Your task to perform on an android device: Search for "razer blackwidow" on amazon, select the first entry, and add it to the cart. Image 0: 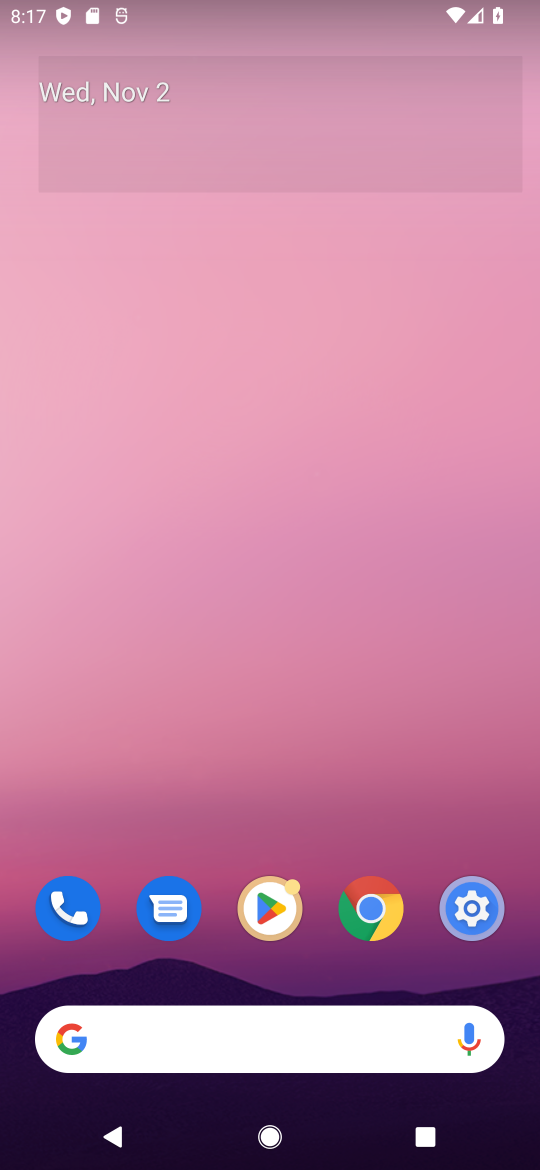
Step 0: click (202, 1043)
Your task to perform on an android device: Search for "razer blackwidow" on amazon, select the first entry, and add it to the cart. Image 1: 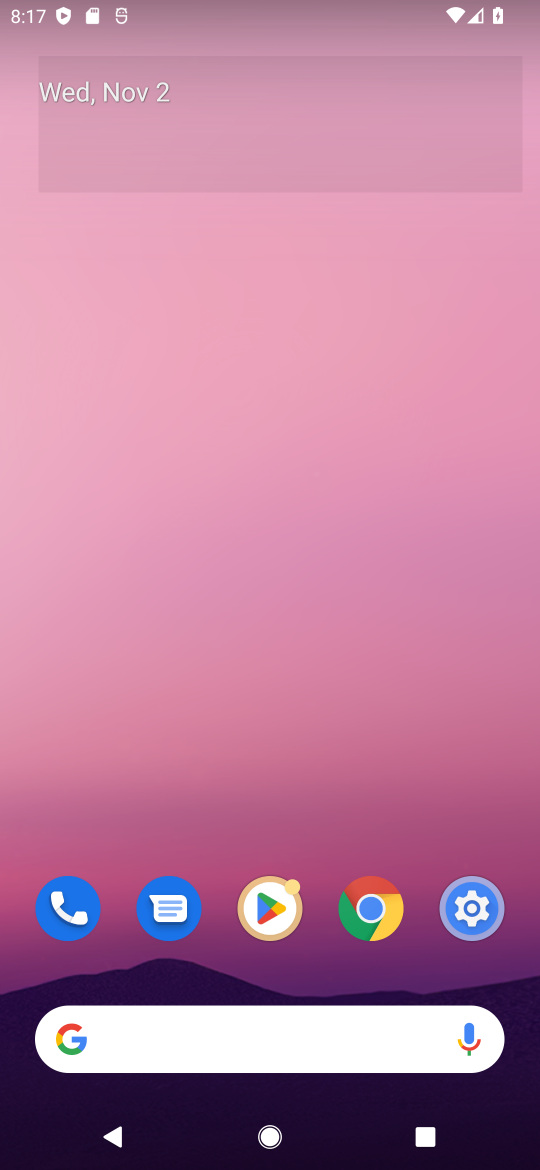
Step 1: click (198, 1052)
Your task to perform on an android device: Search for "razer blackwidow" on amazon, select the first entry, and add it to the cart. Image 2: 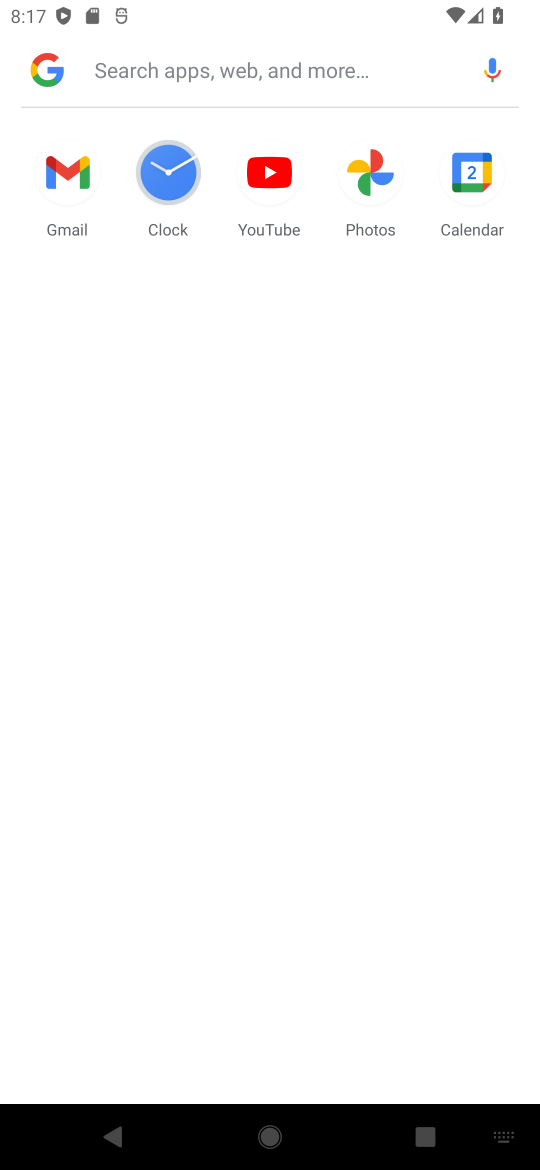
Step 2: type "amazon"
Your task to perform on an android device: Search for "razer blackwidow" on amazon, select the first entry, and add it to the cart. Image 3: 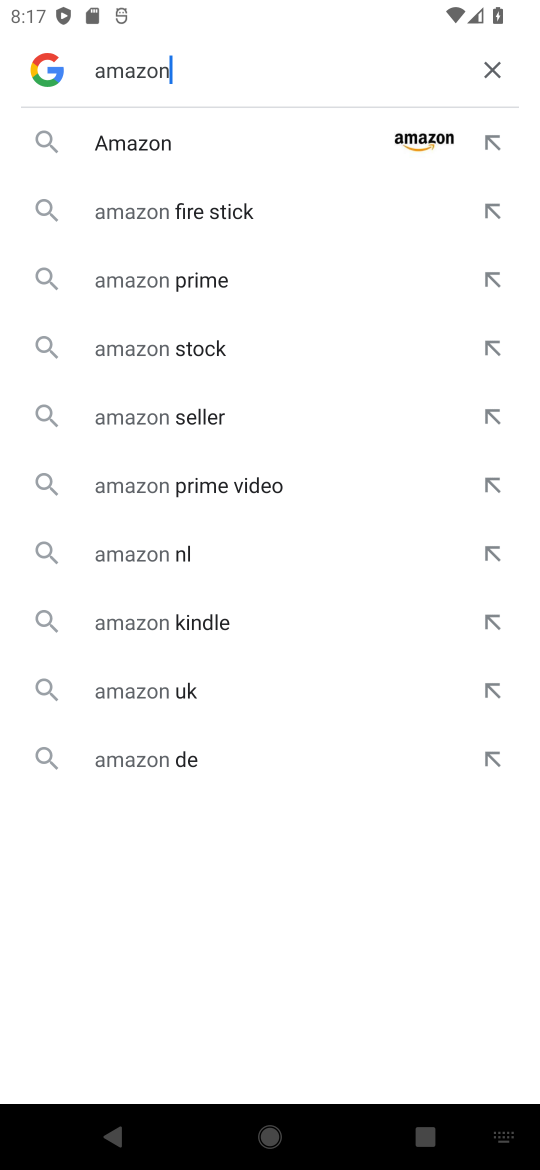
Step 3: type ""
Your task to perform on an android device: Search for "razer blackwidow" on amazon, select the first entry, and add it to the cart. Image 4: 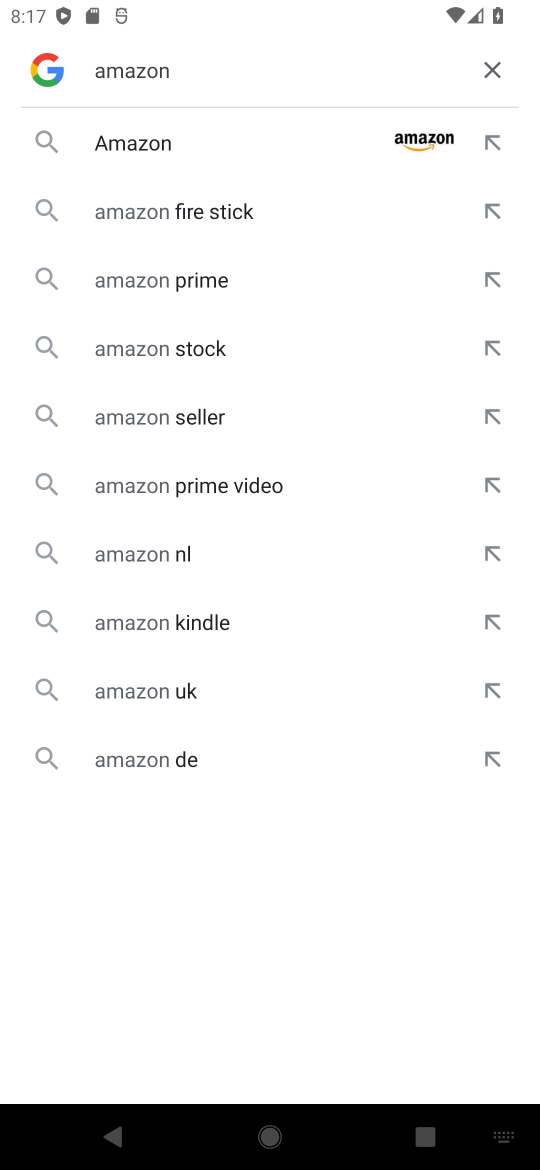
Step 4: press enter
Your task to perform on an android device: Search for "razer blackwidow" on amazon, select the first entry, and add it to the cart. Image 5: 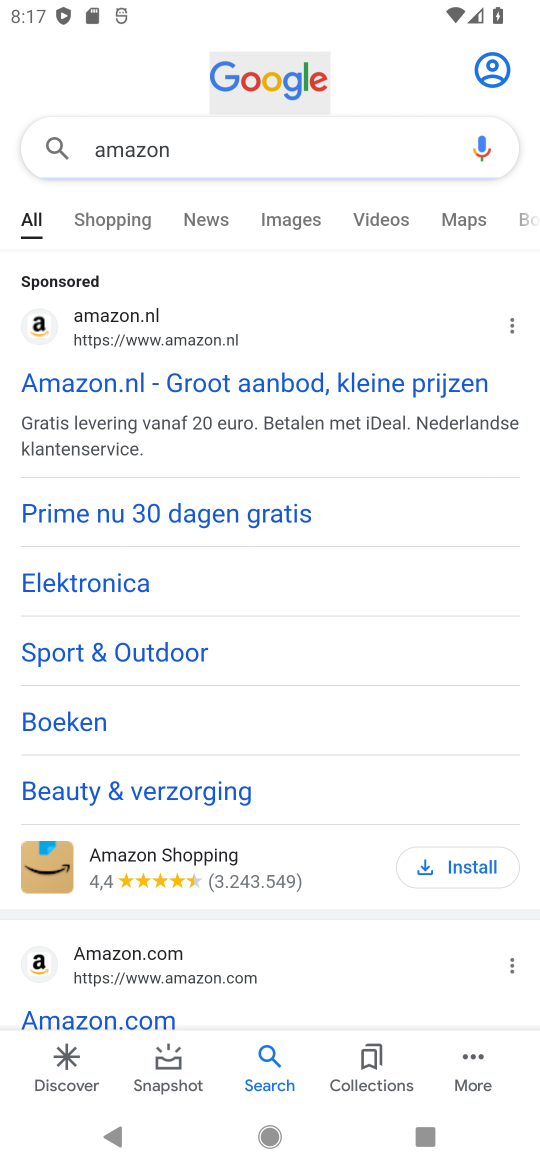
Step 5: click (81, 406)
Your task to perform on an android device: Search for "razer blackwidow" on amazon, select the first entry, and add it to the cart. Image 6: 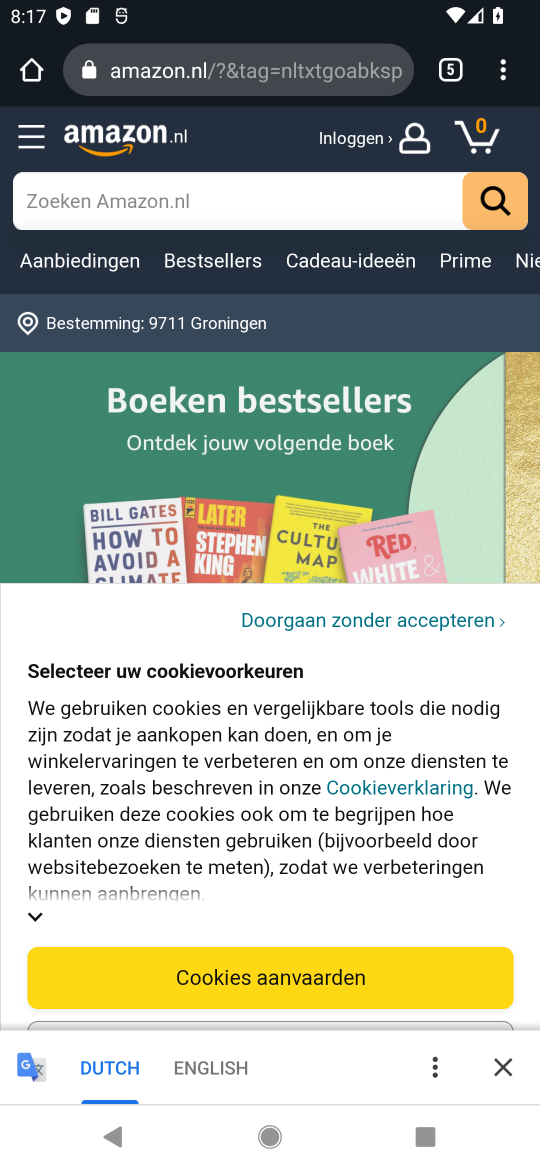
Step 6: drag from (302, 787) to (284, 611)
Your task to perform on an android device: Search for "razer blackwidow" on amazon, select the first entry, and add it to the cart. Image 7: 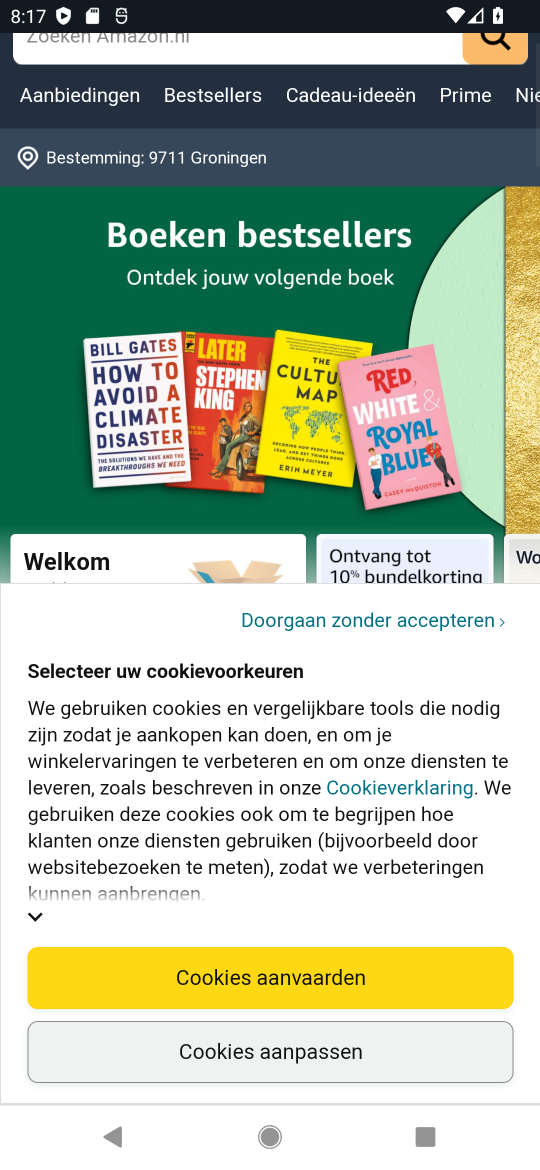
Step 7: drag from (264, 197) to (313, 571)
Your task to perform on an android device: Search for "razer blackwidow" on amazon, select the first entry, and add it to the cart. Image 8: 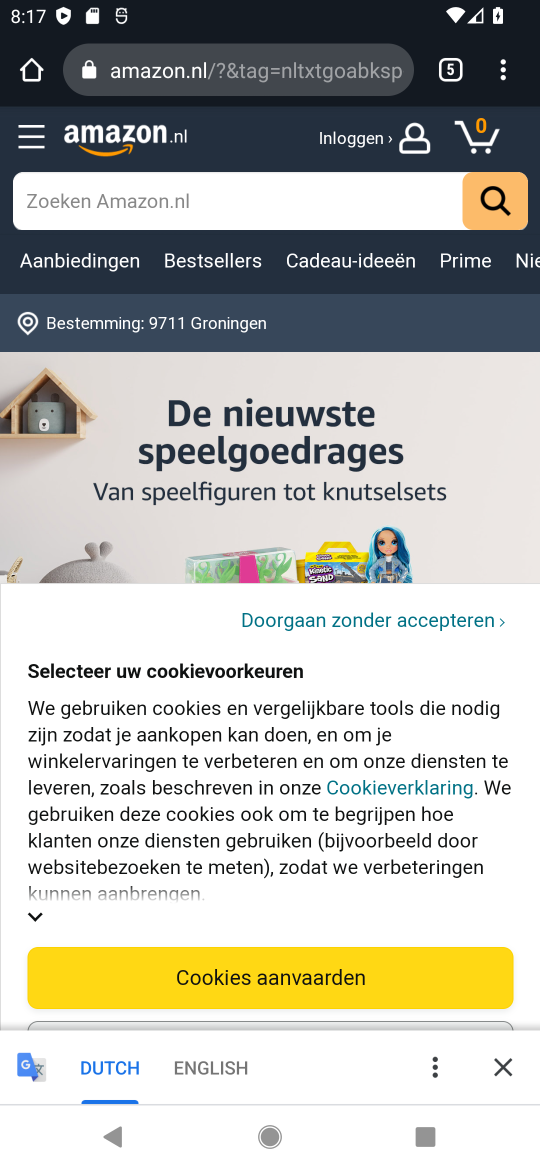
Step 8: click (281, 215)
Your task to perform on an android device: Search for "razer blackwidow" on amazon, select the first entry, and add it to the cart. Image 9: 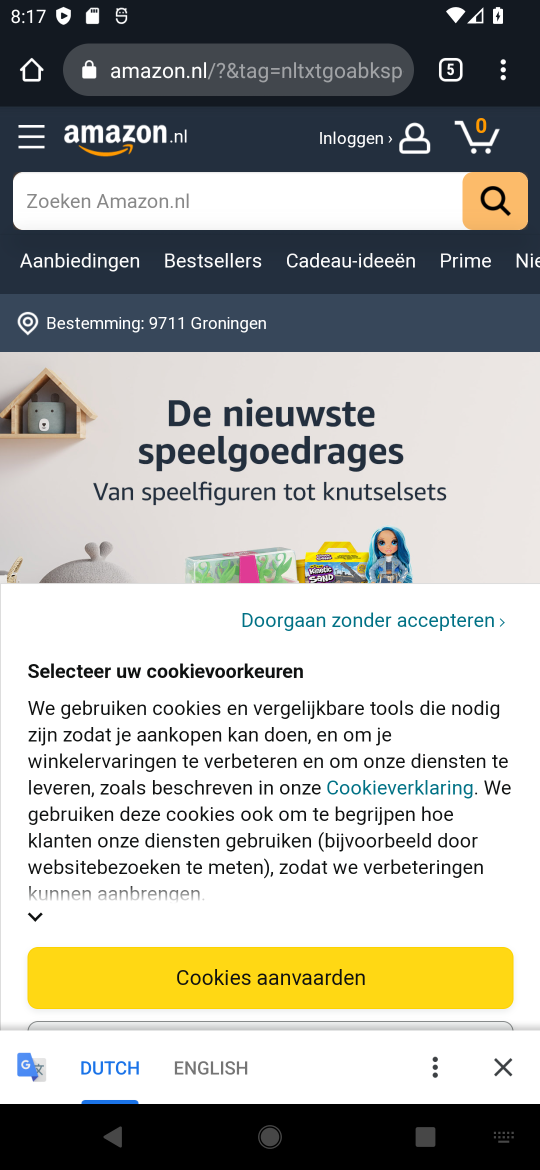
Step 9: click (273, 205)
Your task to perform on an android device: Search for "razer blackwidow" on amazon, select the first entry, and add it to the cart. Image 10: 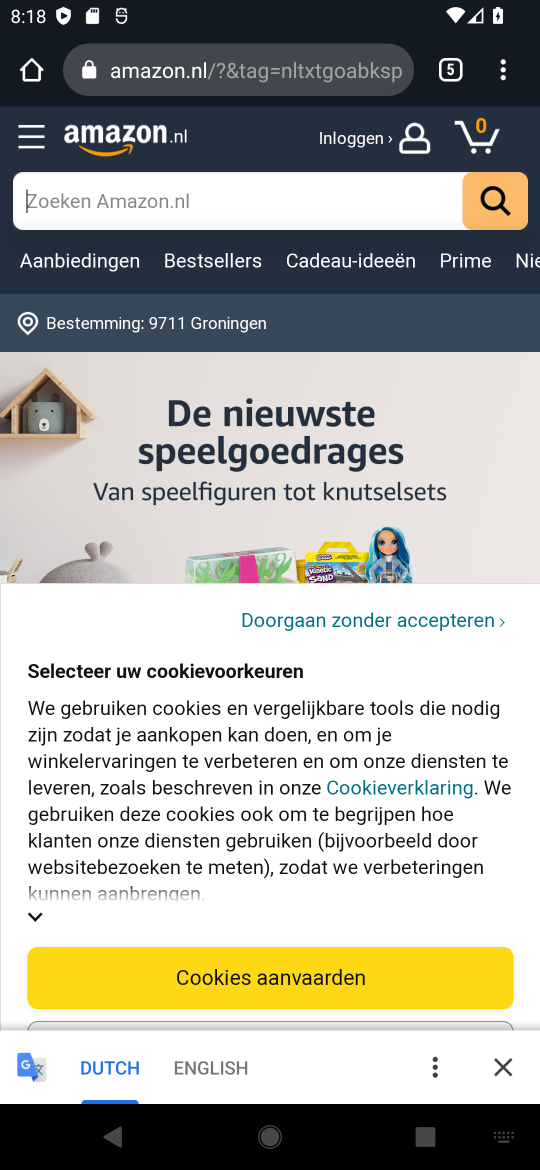
Step 10: click (307, 995)
Your task to perform on an android device: Search for "razer blackwidow" on amazon, select the first entry, and add it to the cart. Image 11: 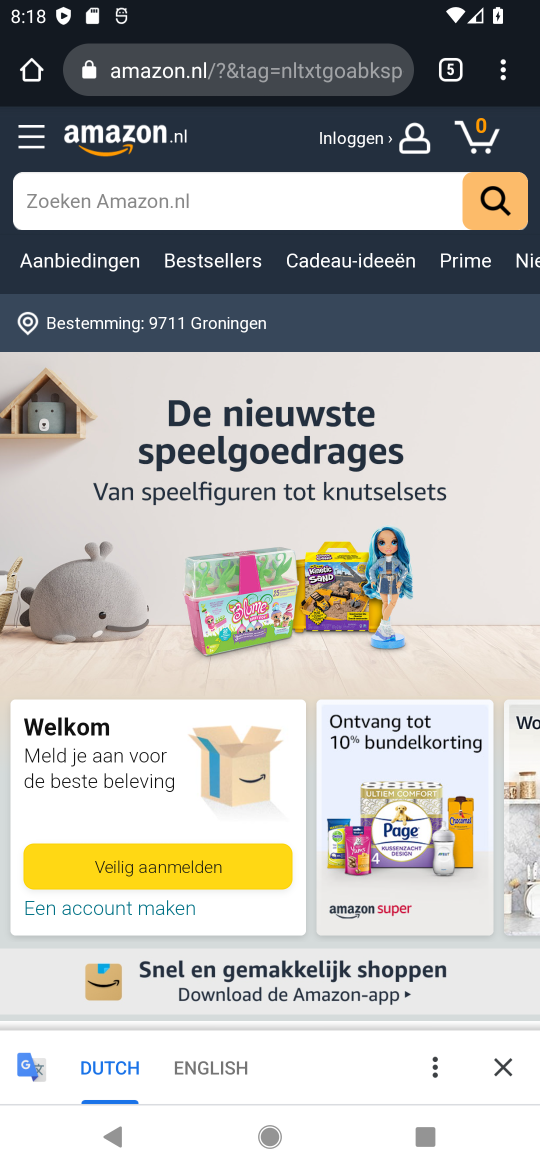
Step 11: click (179, 208)
Your task to perform on an android device: Search for "razer blackwidow" on amazon, select the first entry, and add it to the cart. Image 12: 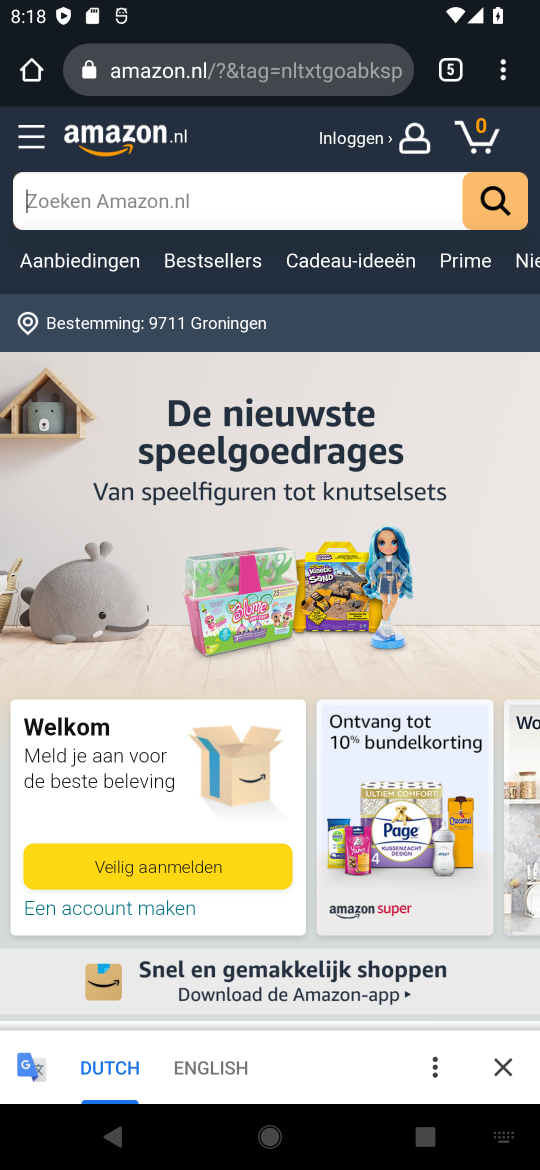
Step 12: click (71, 202)
Your task to perform on an android device: Search for "razer blackwidow" on amazon, select the first entry, and add it to the cart. Image 13: 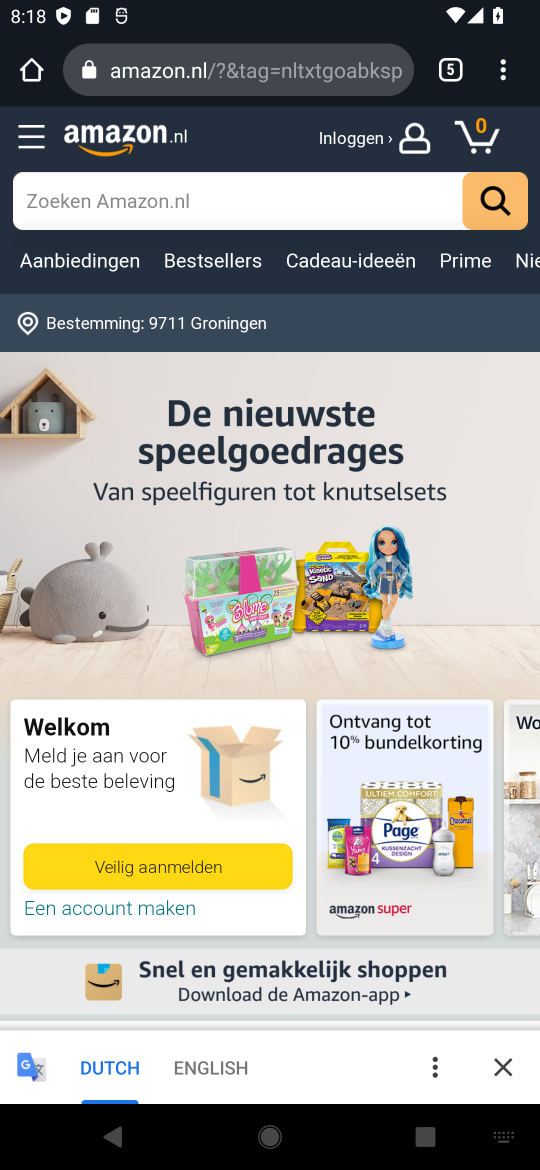
Step 13: type "razer blackwidow"
Your task to perform on an android device: Search for "razer blackwidow" on amazon, select the first entry, and add it to the cart. Image 14: 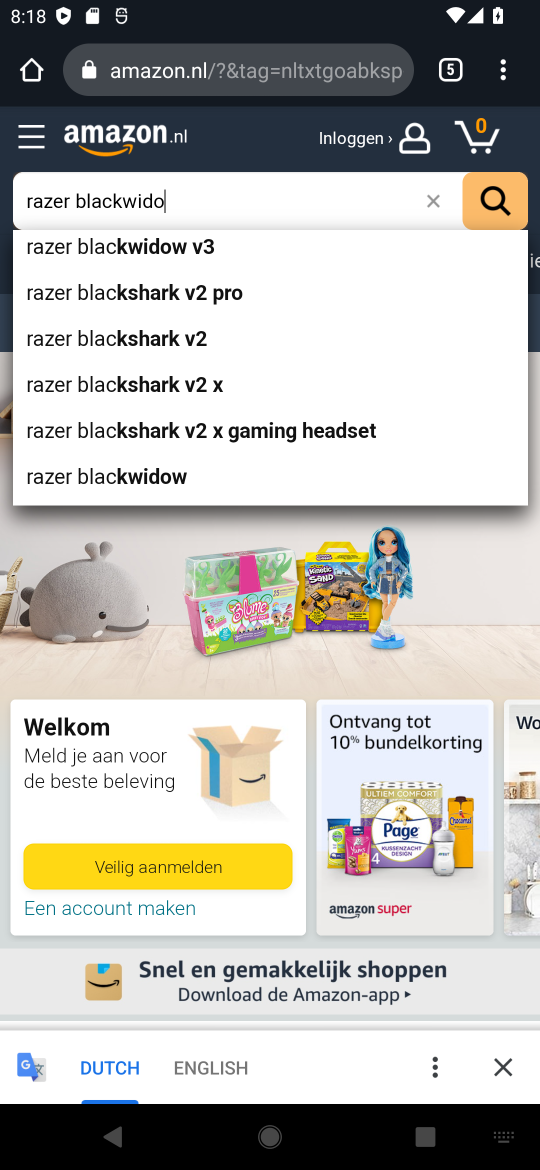
Step 14: type ""
Your task to perform on an android device: Search for "razer blackwidow" on amazon, select the first entry, and add it to the cart. Image 15: 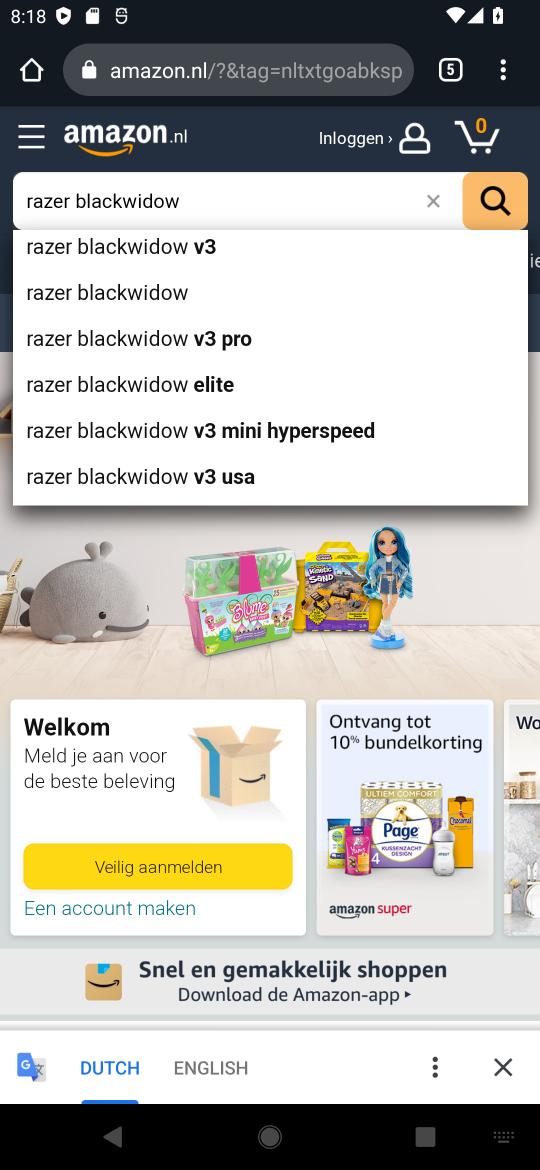
Step 15: press enter
Your task to perform on an android device: Search for "razer blackwidow" on amazon, select the first entry, and add it to the cart. Image 16: 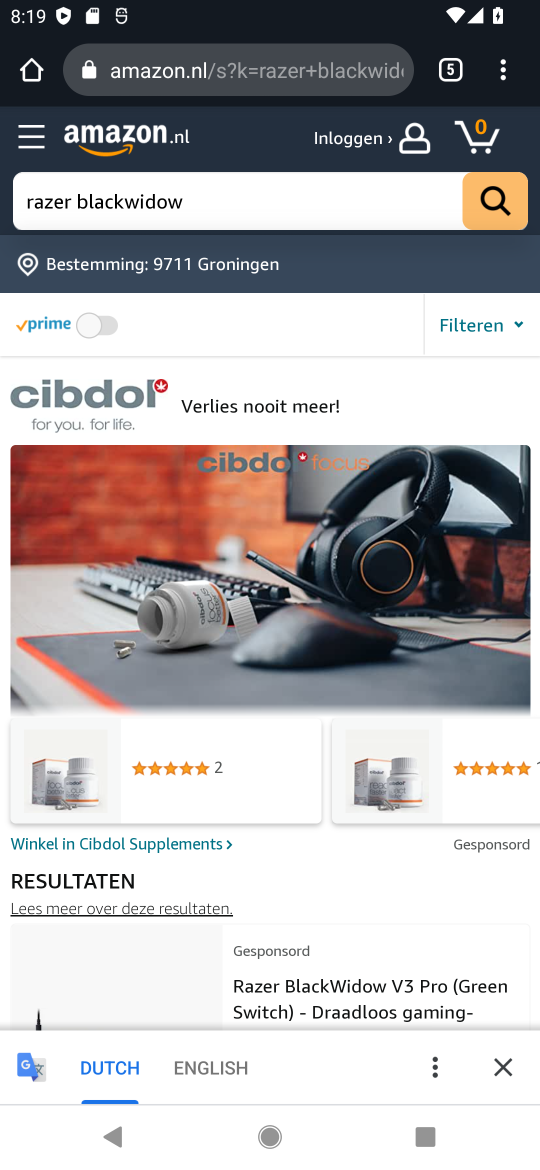
Step 16: press enter
Your task to perform on an android device: Search for "razer blackwidow" on amazon, select the first entry, and add it to the cart. Image 17: 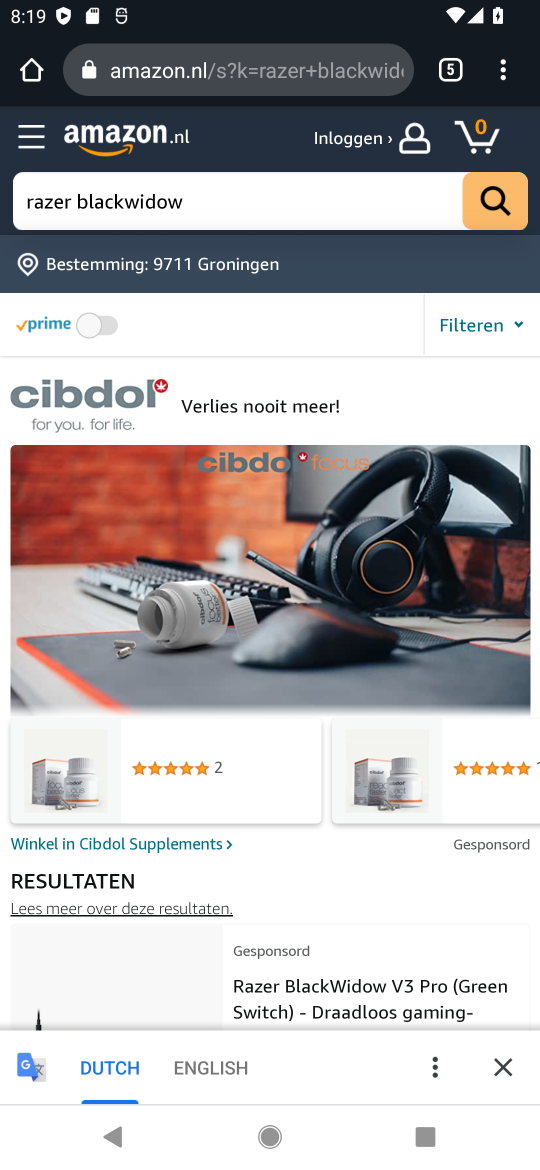
Step 17: click (496, 217)
Your task to perform on an android device: Search for "razer blackwidow" on amazon, select the first entry, and add it to the cart. Image 18: 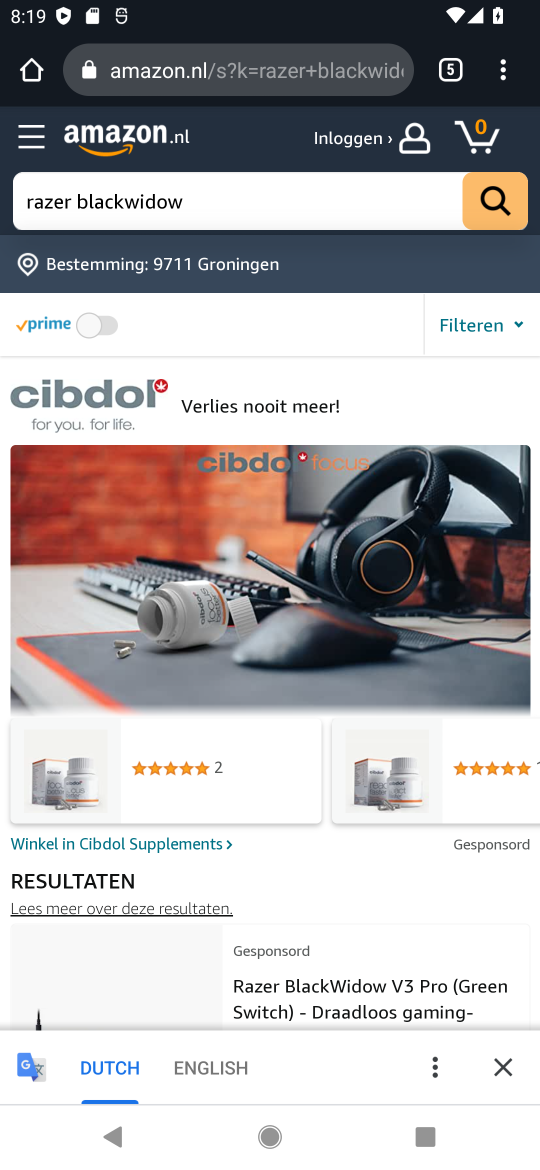
Step 18: click (499, 205)
Your task to perform on an android device: Search for "razer blackwidow" on amazon, select the first entry, and add it to the cart. Image 19: 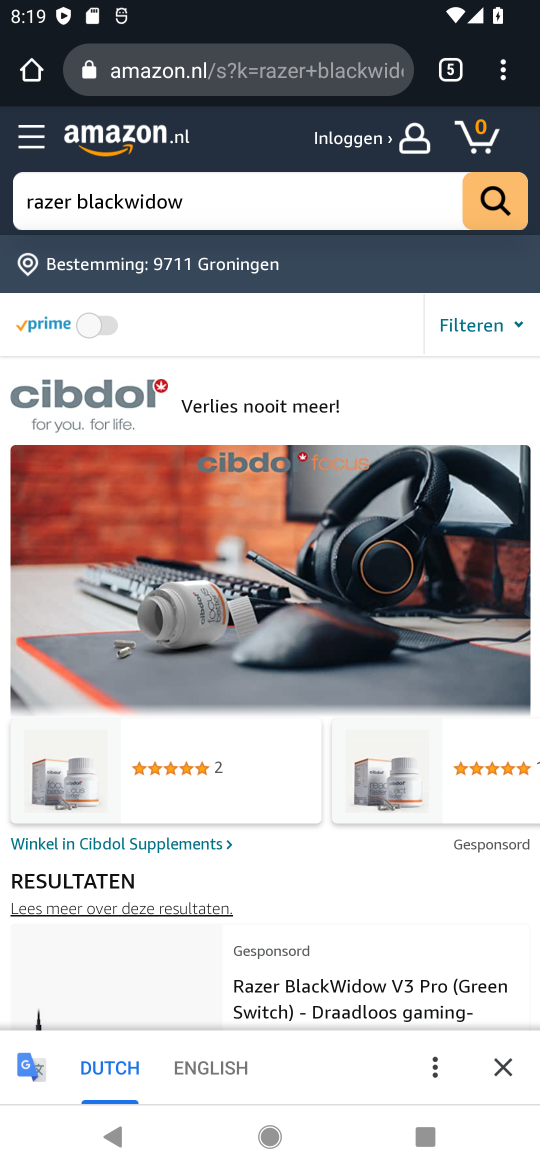
Step 19: drag from (296, 915) to (296, 556)
Your task to perform on an android device: Search for "razer blackwidow" on amazon, select the first entry, and add it to the cart. Image 20: 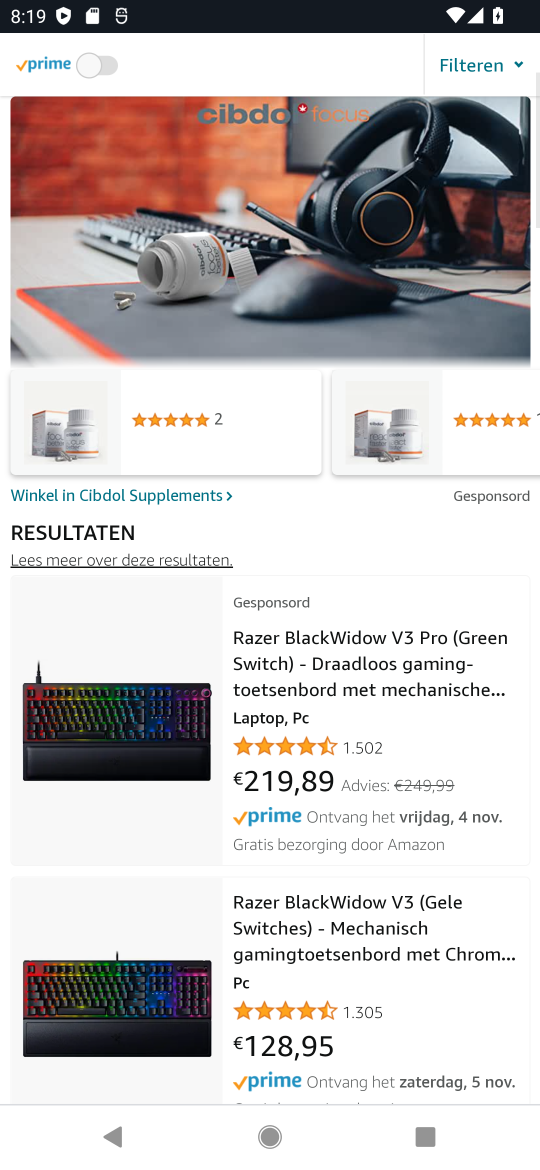
Step 20: click (304, 892)
Your task to perform on an android device: Search for "razer blackwidow" on amazon, select the first entry, and add it to the cart. Image 21: 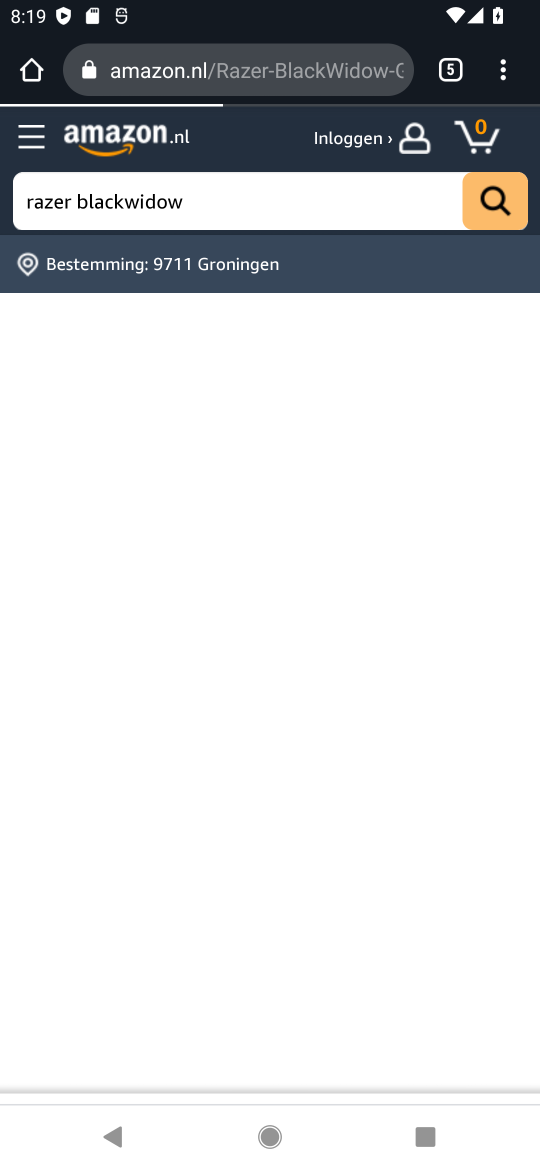
Step 21: click (319, 658)
Your task to perform on an android device: Search for "razer blackwidow" on amazon, select the first entry, and add it to the cart. Image 22: 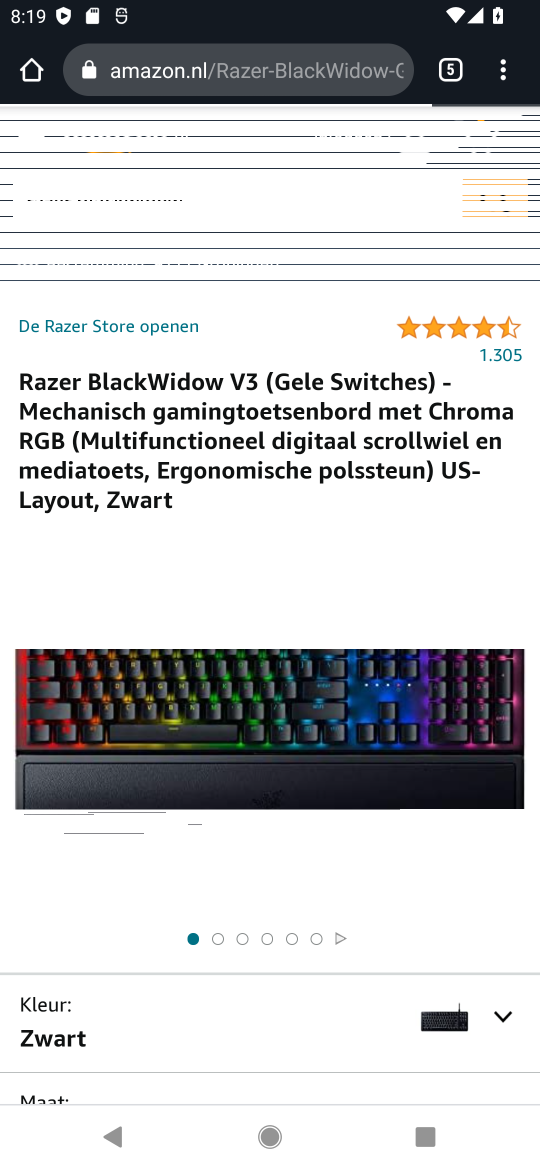
Step 22: drag from (248, 984) to (281, 356)
Your task to perform on an android device: Search for "razer blackwidow" on amazon, select the first entry, and add it to the cart. Image 23: 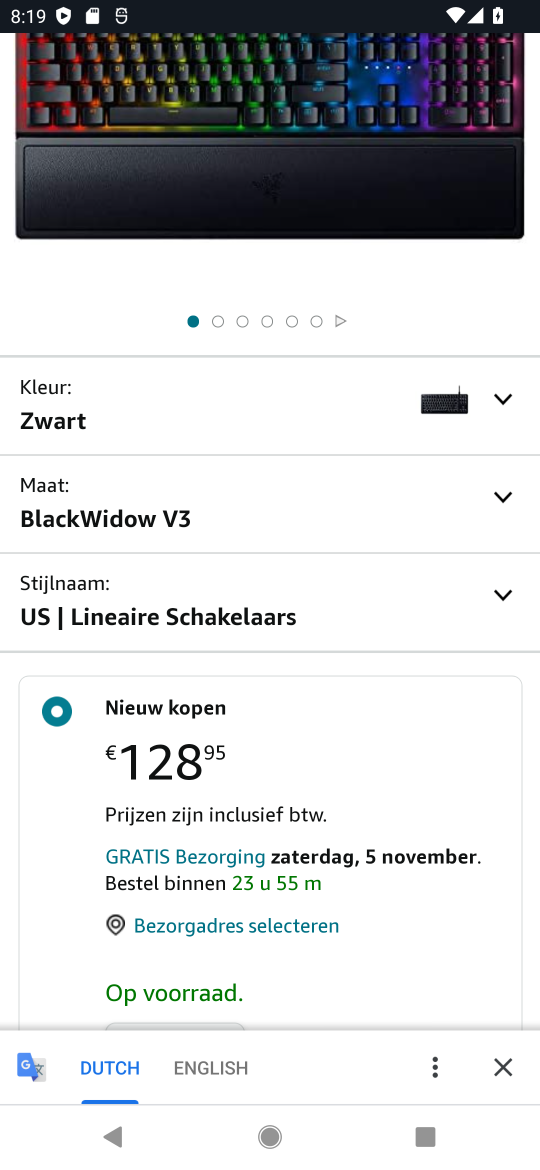
Step 23: drag from (268, 938) to (259, 730)
Your task to perform on an android device: Search for "razer blackwidow" on amazon, select the first entry, and add it to the cart. Image 24: 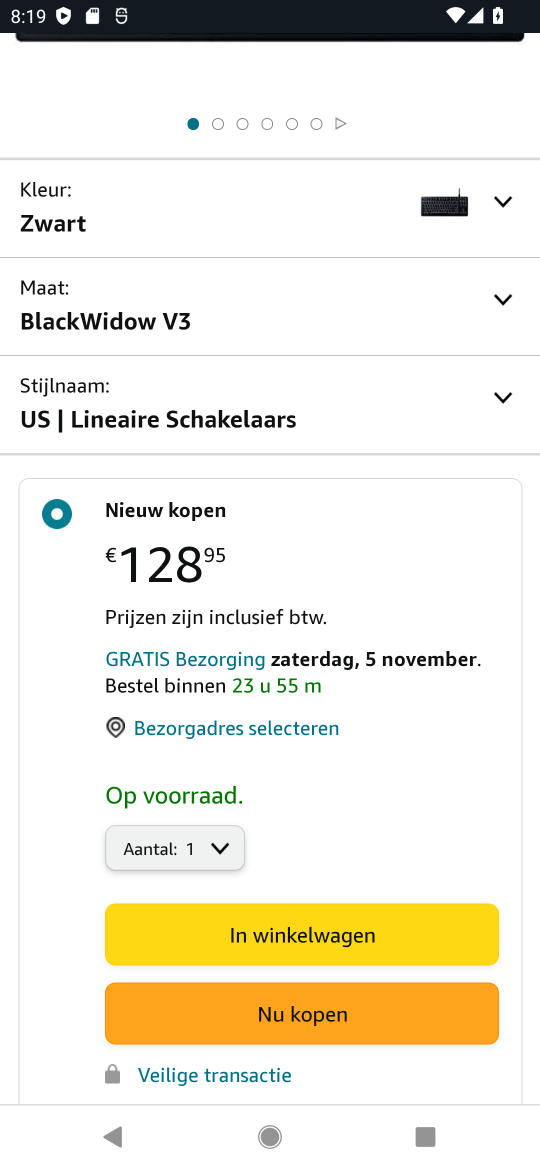
Step 24: click (274, 931)
Your task to perform on an android device: Search for "razer blackwidow" on amazon, select the first entry, and add it to the cart. Image 25: 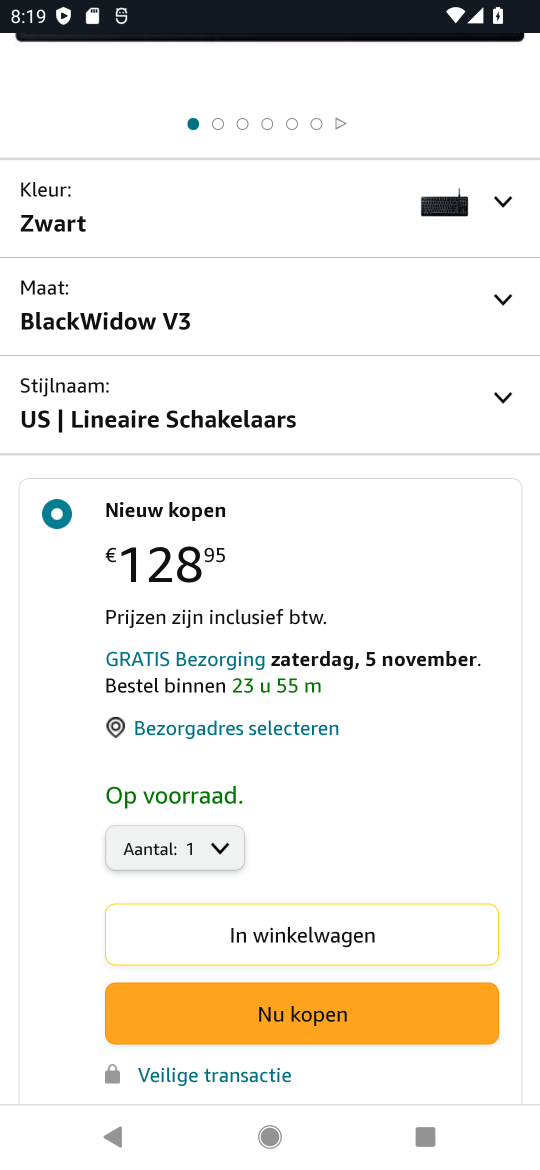
Step 25: drag from (352, 740) to (352, 622)
Your task to perform on an android device: Search for "razer blackwidow" on amazon, select the first entry, and add it to the cart. Image 26: 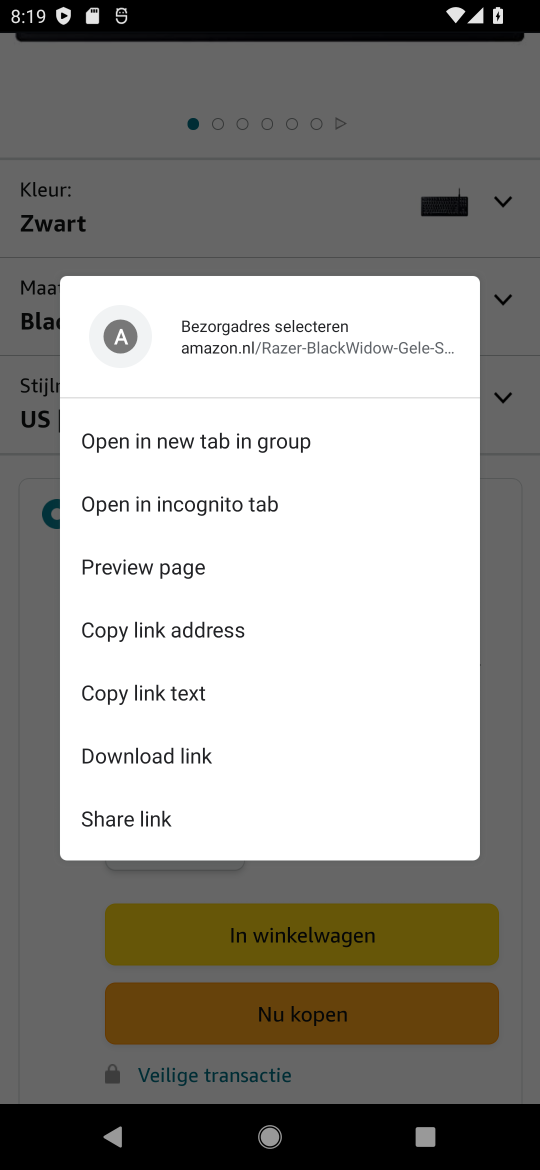
Step 26: click (494, 597)
Your task to perform on an android device: Search for "razer blackwidow" on amazon, select the first entry, and add it to the cart. Image 27: 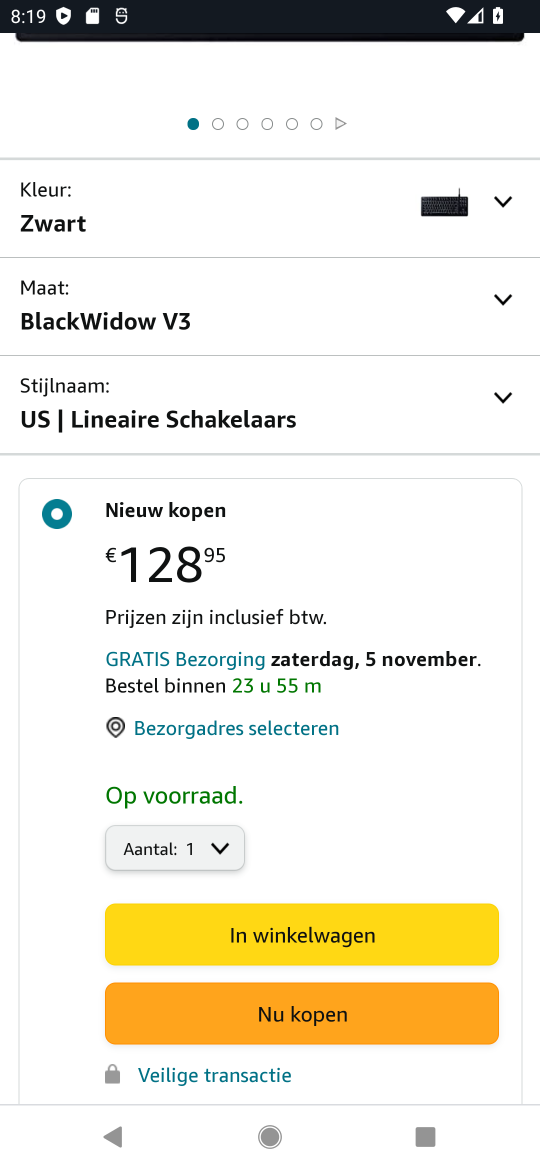
Step 27: drag from (393, 817) to (401, 609)
Your task to perform on an android device: Search for "razer blackwidow" on amazon, select the first entry, and add it to the cart. Image 28: 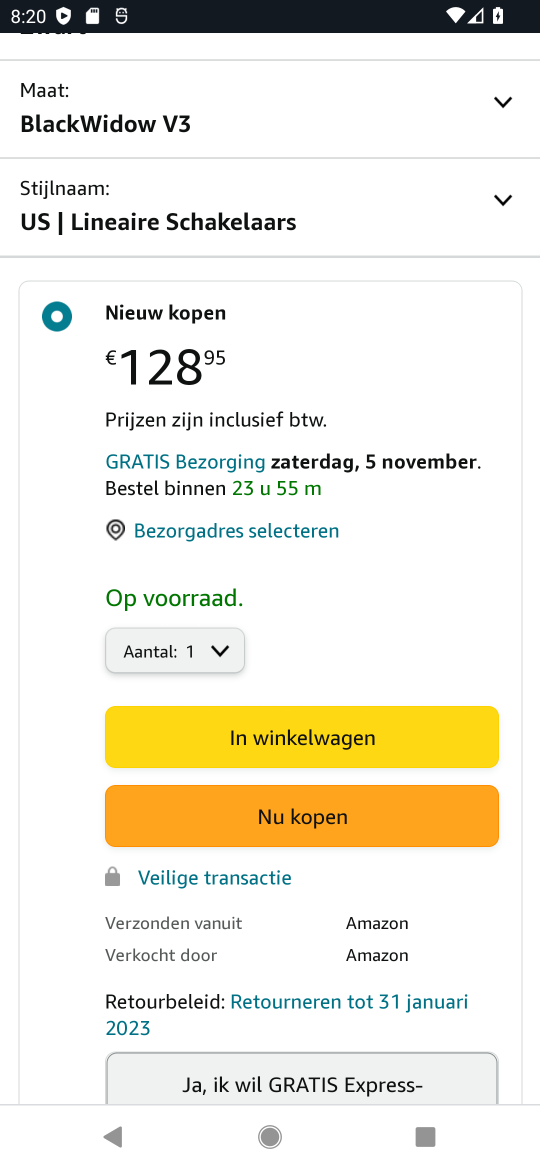
Step 28: click (384, 722)
Your task to perform on an android device: Search for "razer blackwidow" on amazon, select the first entry, and add it to the cart. Image 29: 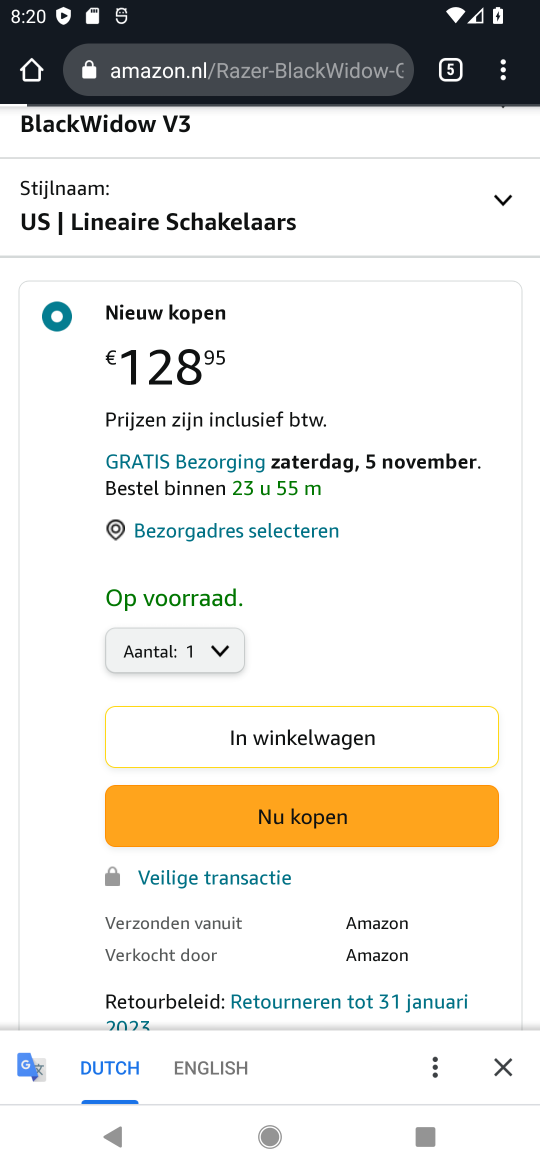
Step 29: task complete